Your task to perform on an android device: check data usage Image 0: 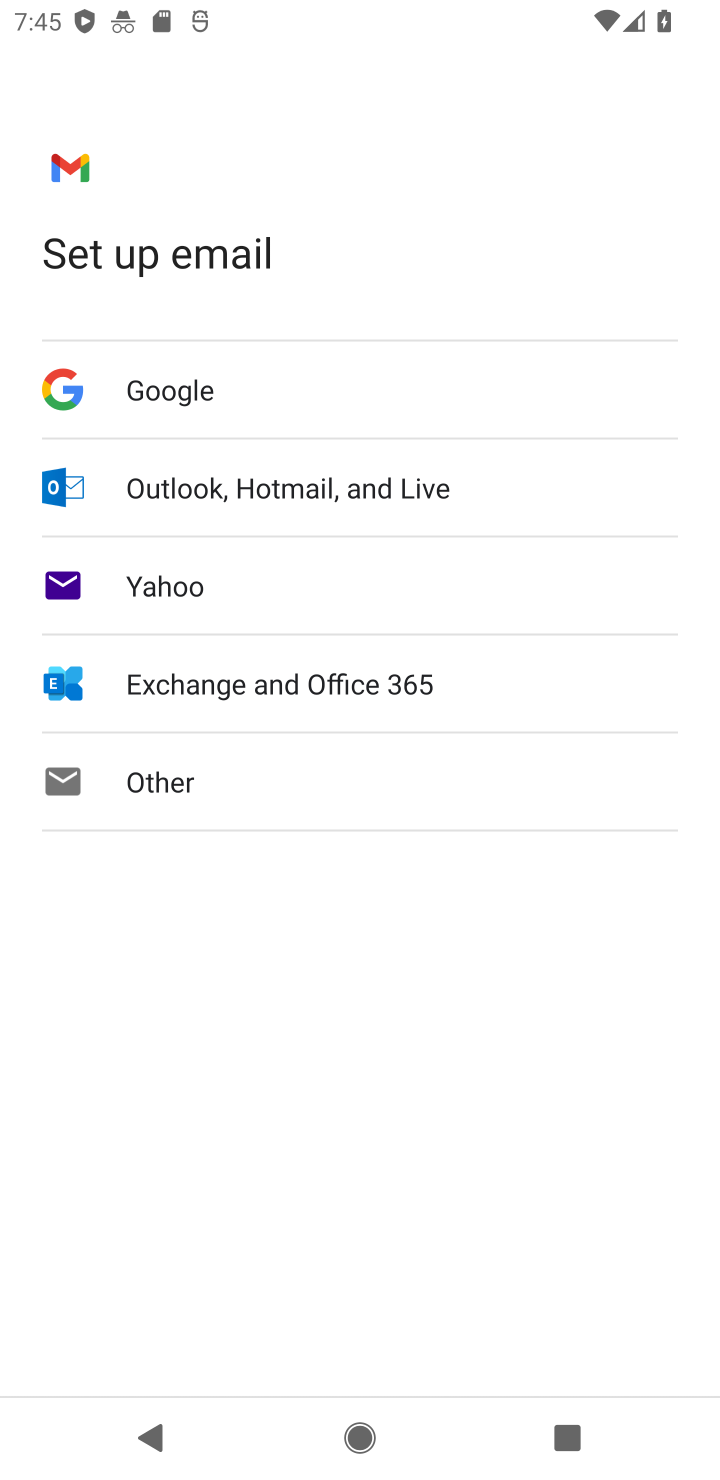
Step 0: press home button
Your task to perform on an android device: check data usage Image 1: 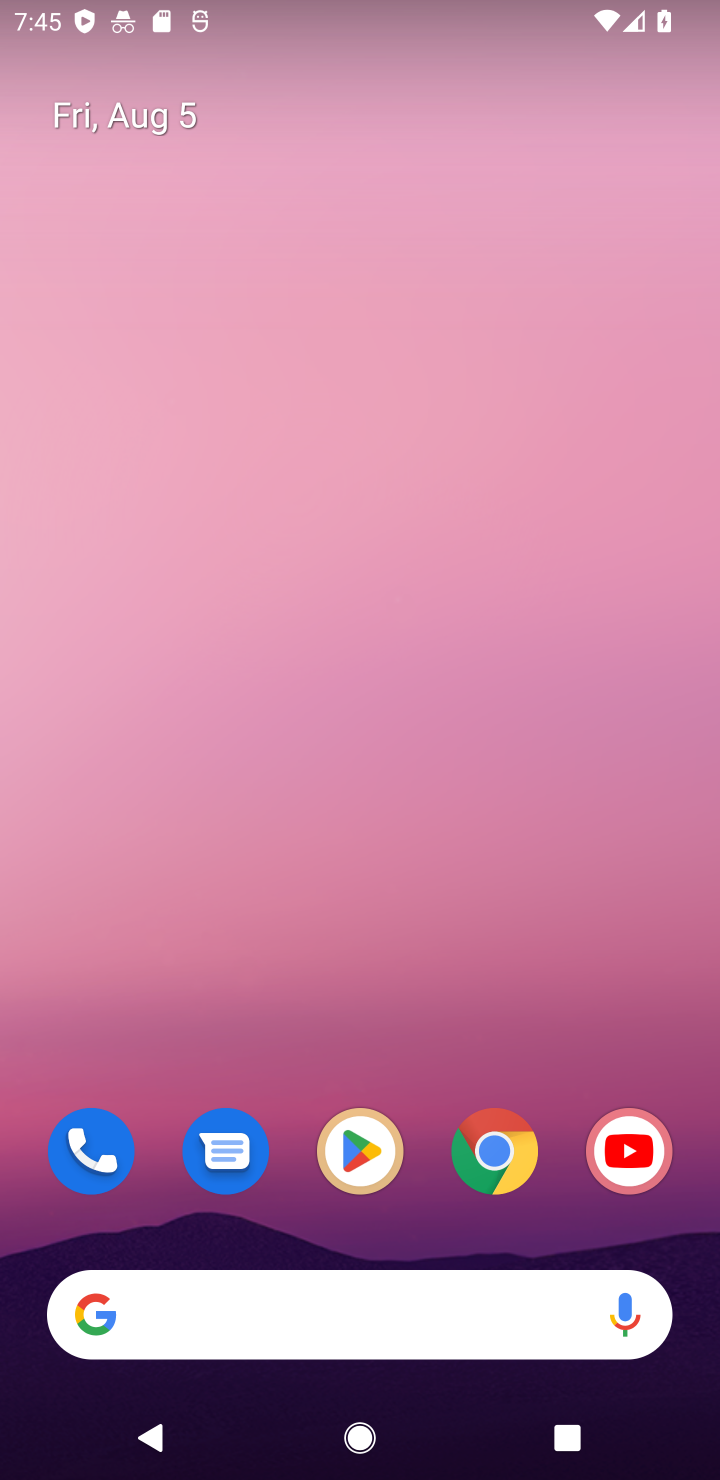
Step 1: drag from (427, 1221) to (353, 24)
Your task to perform on an android device: check data usage Image 2: 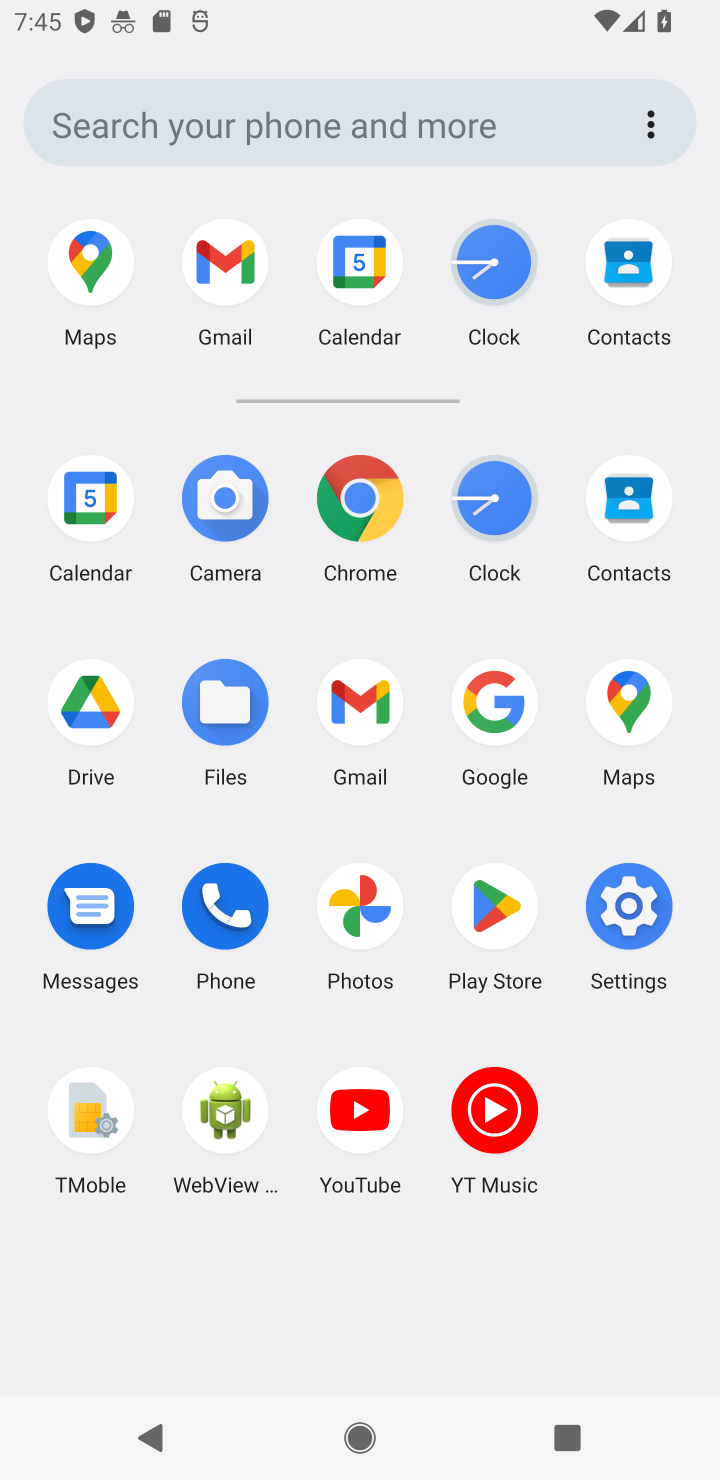
Step 2: click (636, 894)
Your task to perform on an android device: check data usage Image 3: 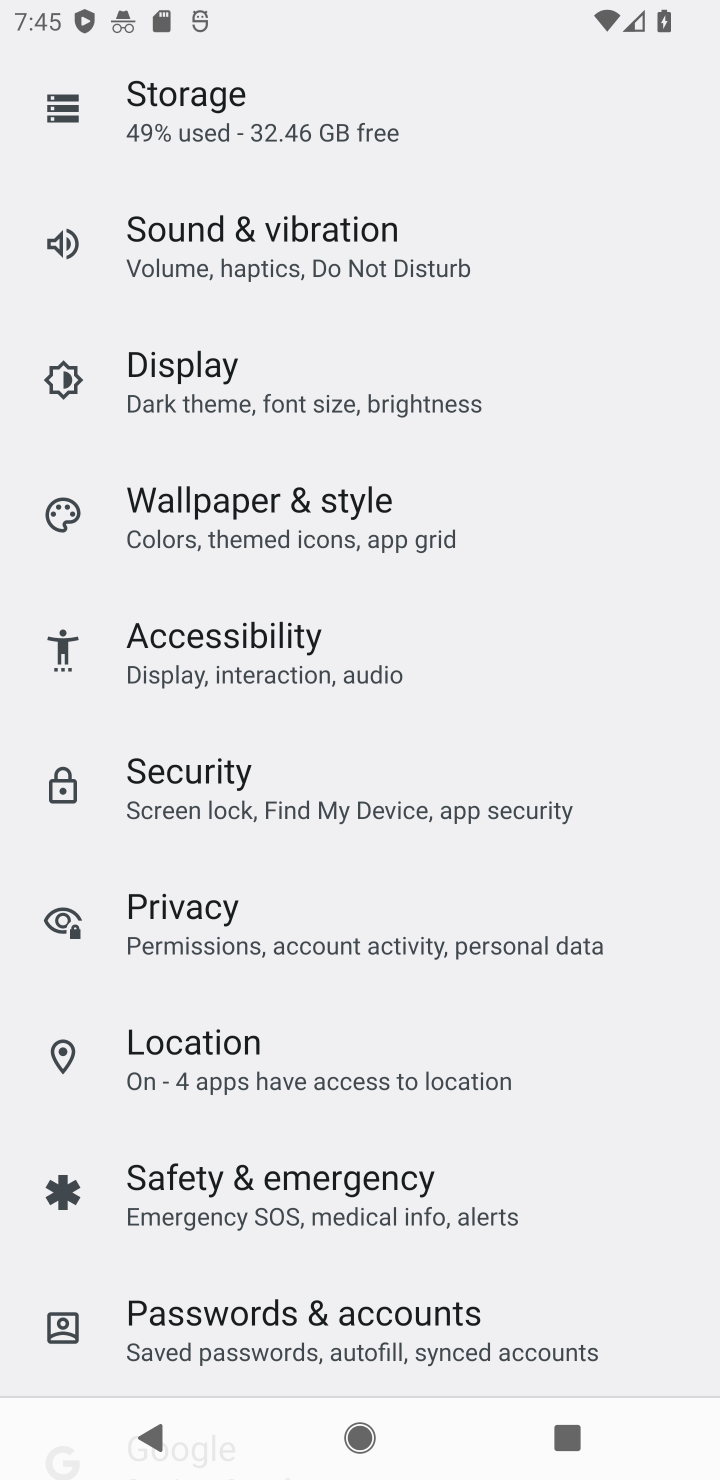
Step 3: drag from (502, 349) to (445, 1072)
Your task to perform on an android device: check data usage Image 4: 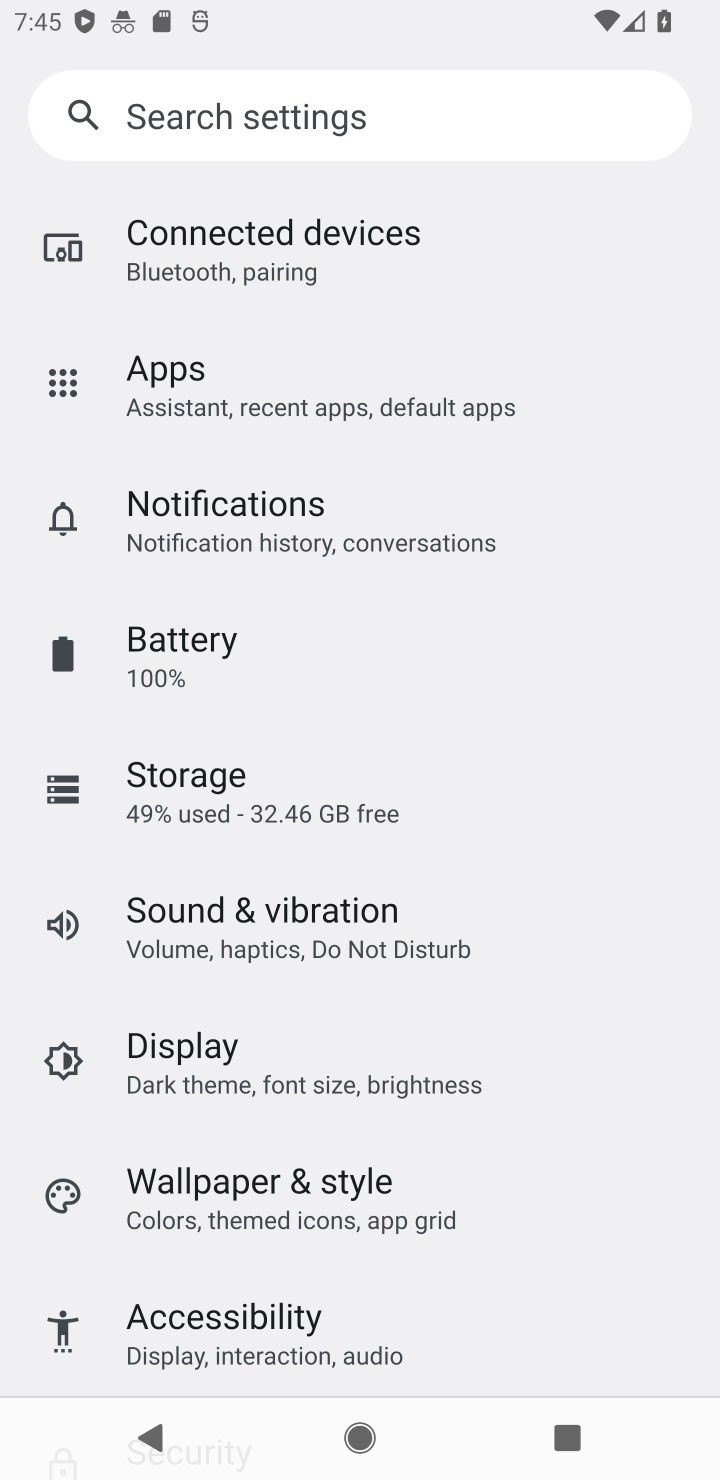
Step 4: drag from (211, 281) to (172, 1047)
Your task to perform on an android device: check data usage Image 5: 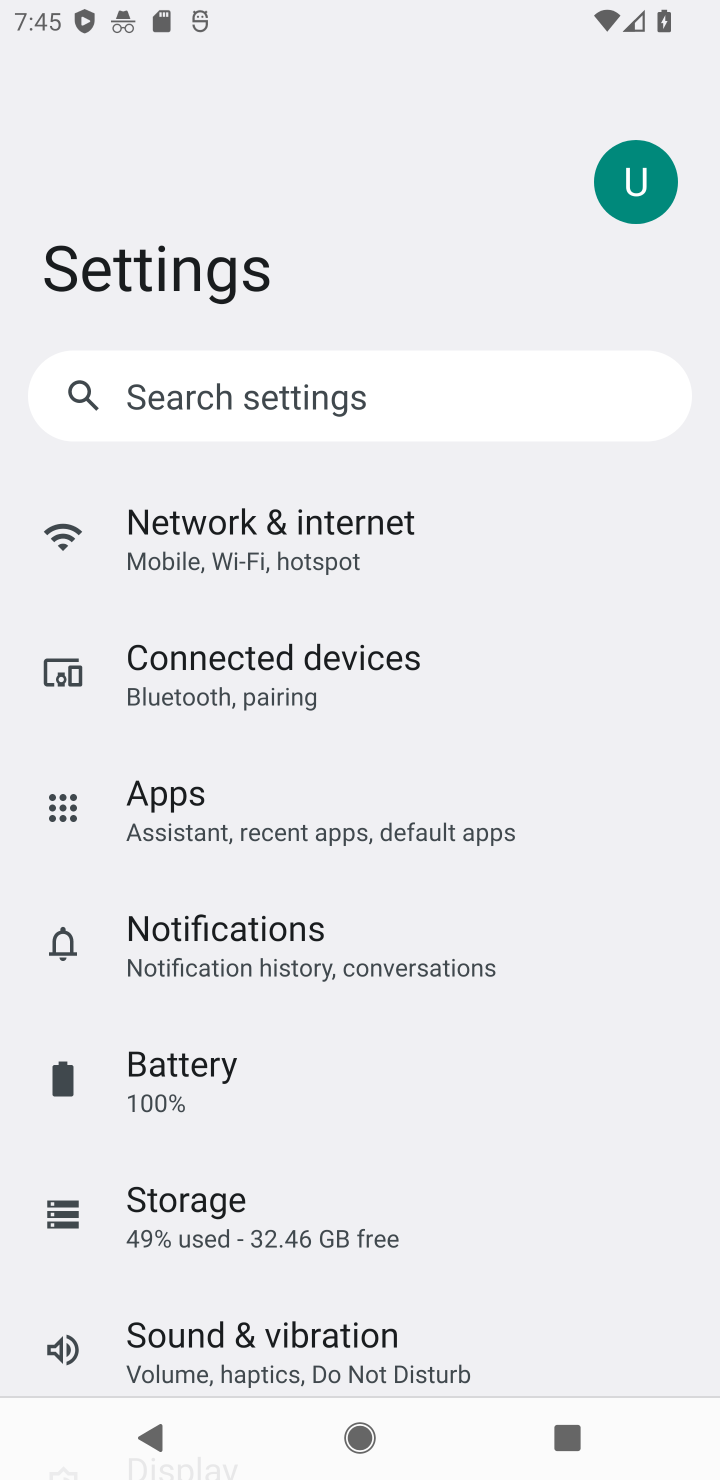
Step 5: drag from (219, 524) to (252, 824)
Your task to perform on an android device: check data usage Image 6: 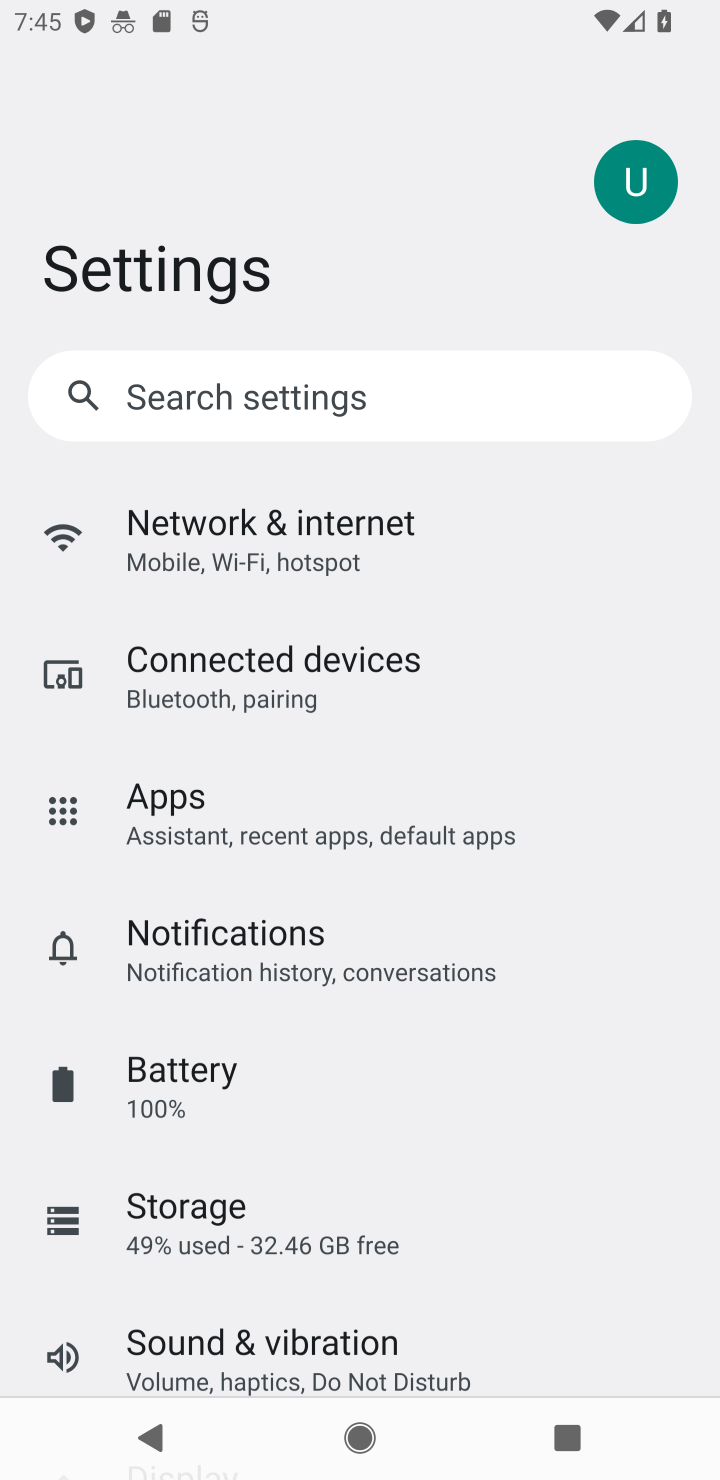
Step 6: click (215, 527)
Your task to perform on an android device: check data usage Image 7: 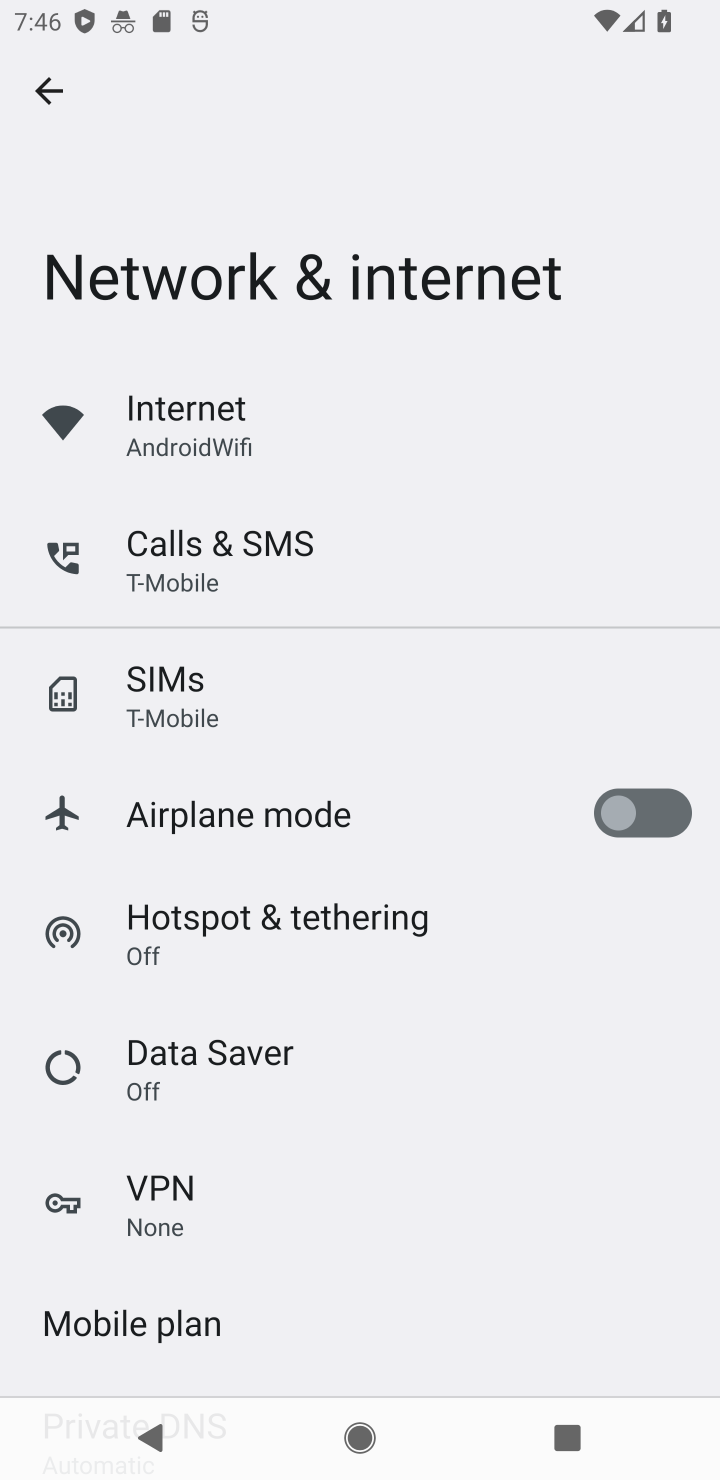
Step 7: click (132, 470)
Your task to perform on an android device: check data usage Image 8: 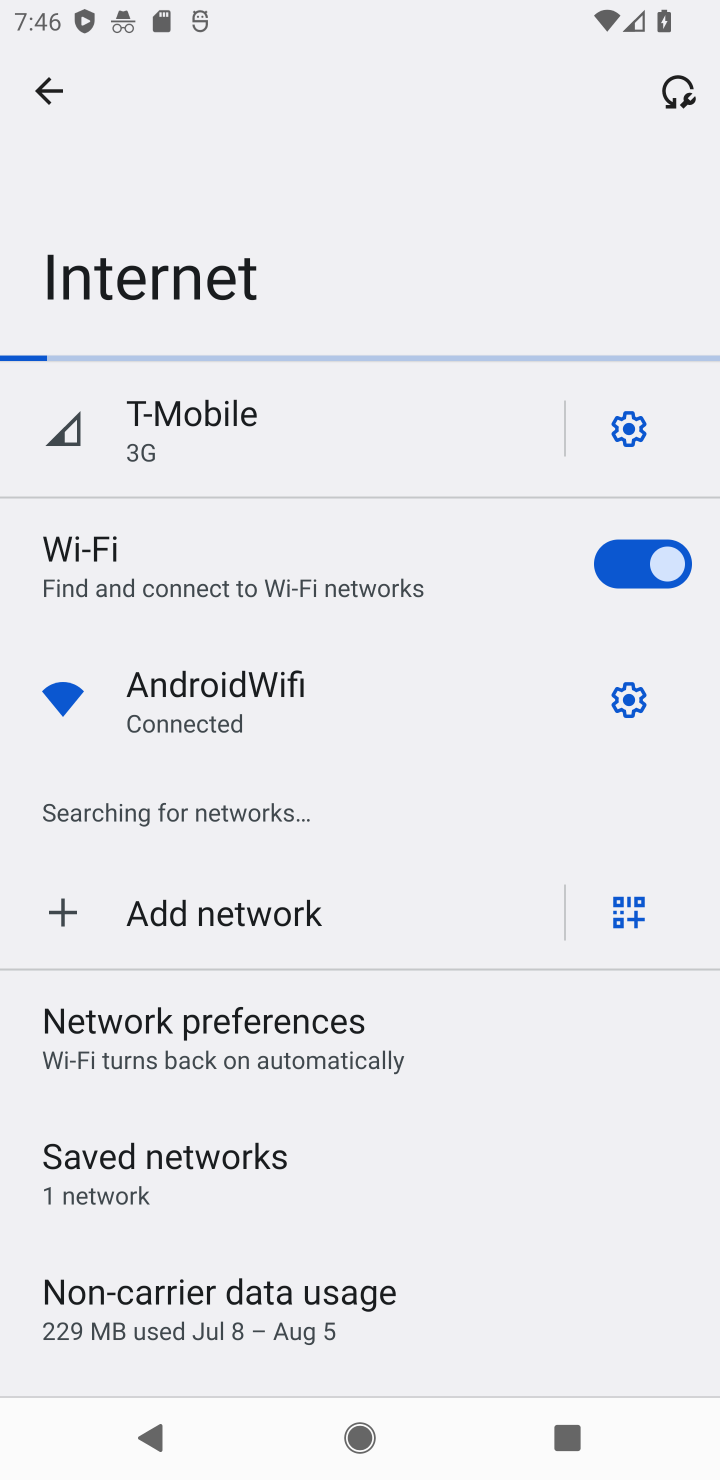
Step 8: task complete